Your task to perform on an android device: change text size in settings app Image 0: 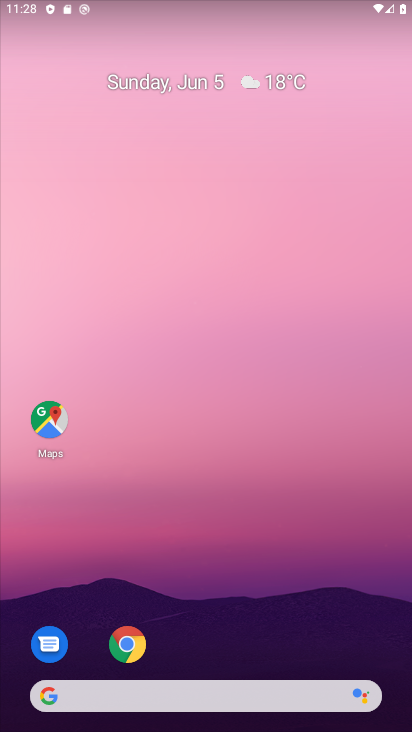
Step 0: drag from (292, 645) to (325, 90)
Your task to perform on an android device: change text size in settings app Image 1: 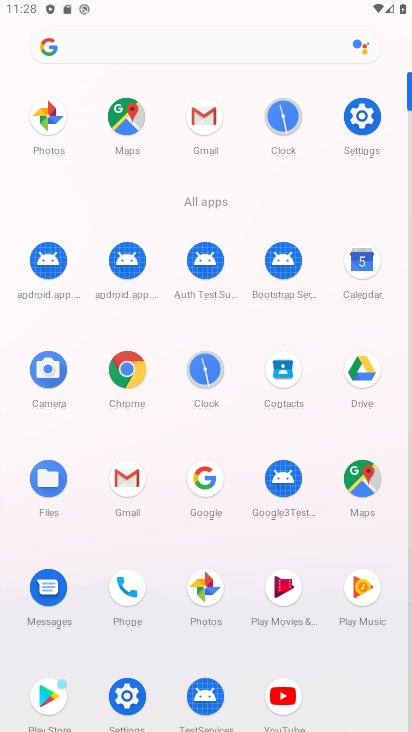
Step 1: click (356, 124)
Your task to perform on an android device: change text size in settings app Image 2: 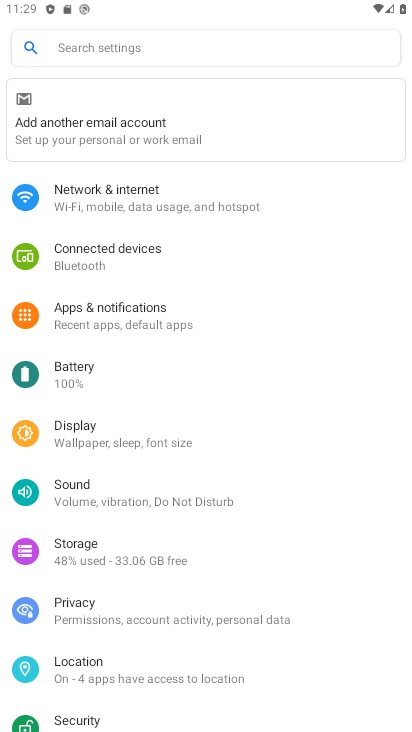
Step 2: drag from (186, 623) to (183, 327)
Your task to perform on an android device: change text size in settings app Image 3: 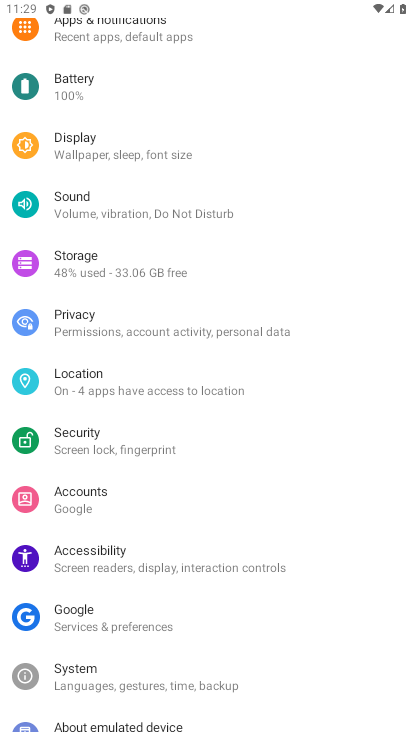
Step 3: click (165, 138)
Your task to perform on an android device: change text size in settings app Image 4: 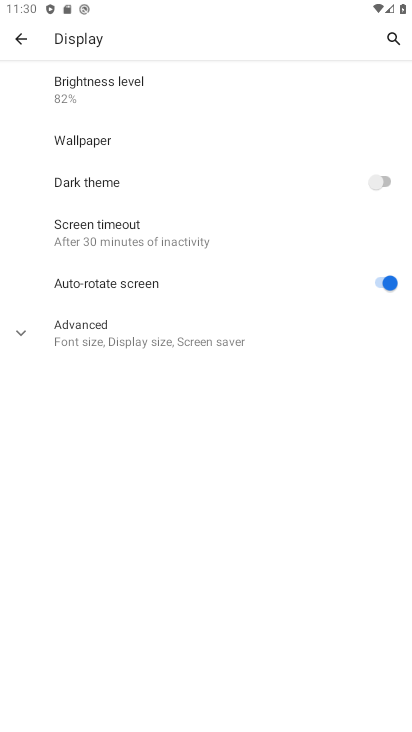
Step 4: click (80, 337)
Your task to perform on an android device: change text size in settings app Image 5: 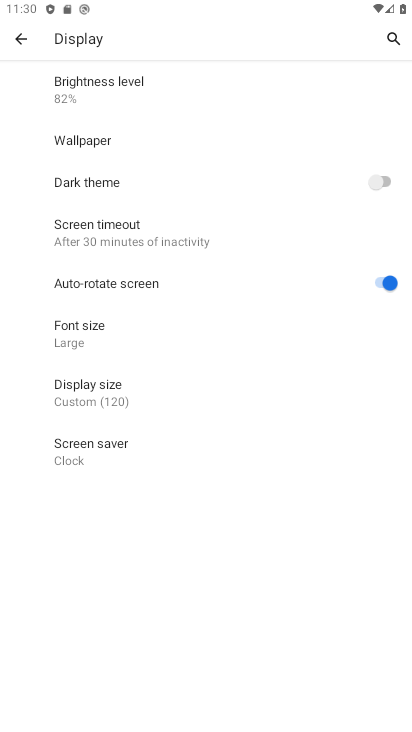
Step 5: click (141, 322)
Your task to perform on an android device: change text size in settings app Image 6: 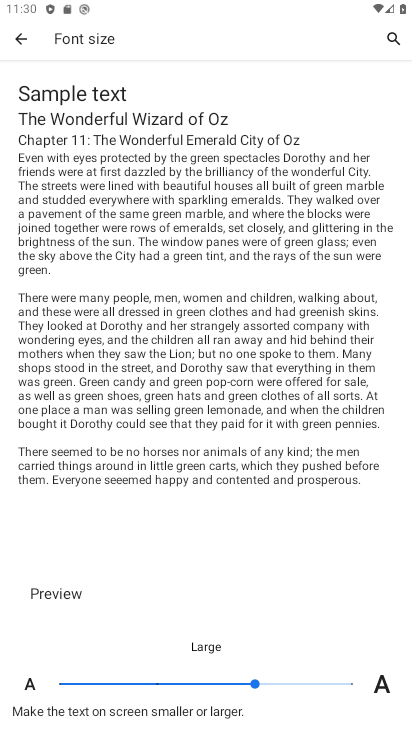
Step 6: click (352, 674)
Your task to perform on an android device: change text size in settings app Image 7: 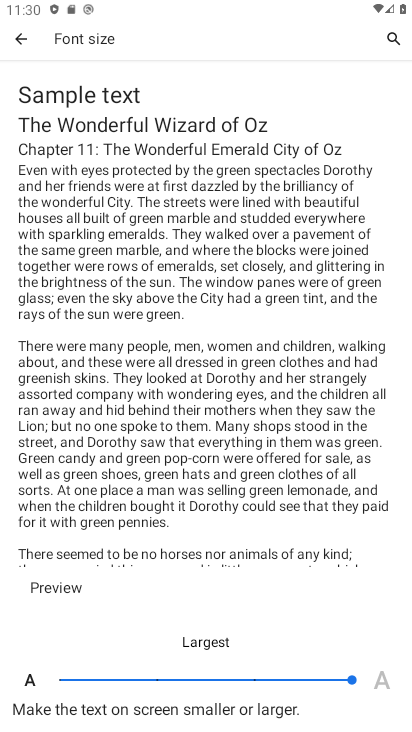
Step 7: task complete